Your task to perform on an android device: Open calendar and show me the fourth week of next month Image 0: 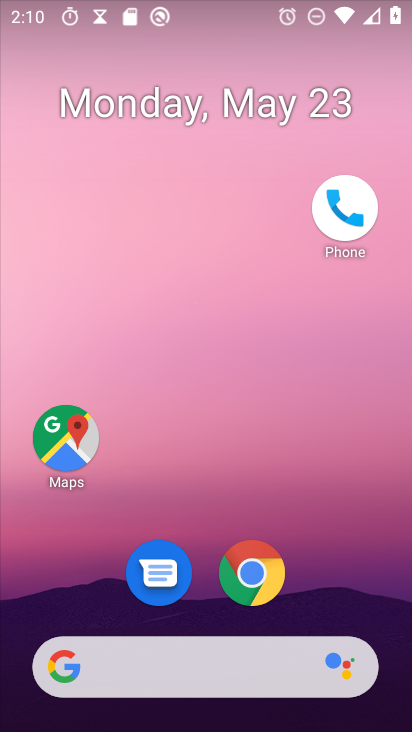
Step 0: press home button
Your task to perform on an android device: Open calendar and show me the fourth week of next month Image 1: 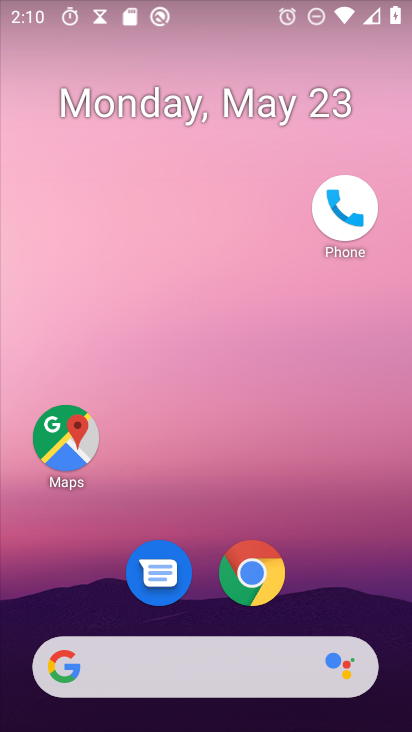
Step 1: drag from (134, 649) to (230, 204)
Your task to perform on an android device: Open calendar and show me the fourth week of next month Image 2: 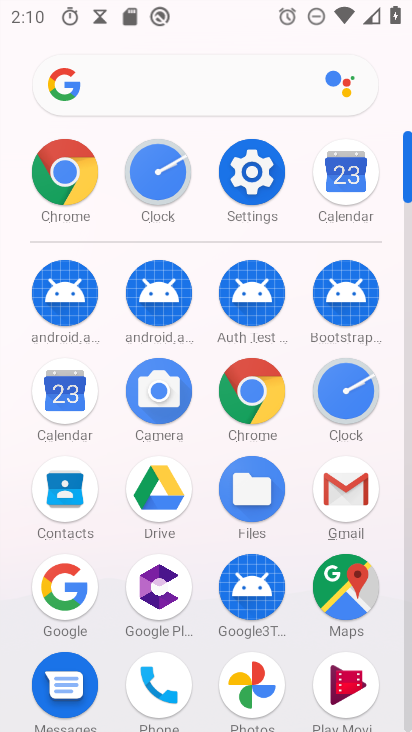
Step 2: click (73, 407)
Your task to perform on an android device: Open calendar and show me the fourth week of next month Image 3: 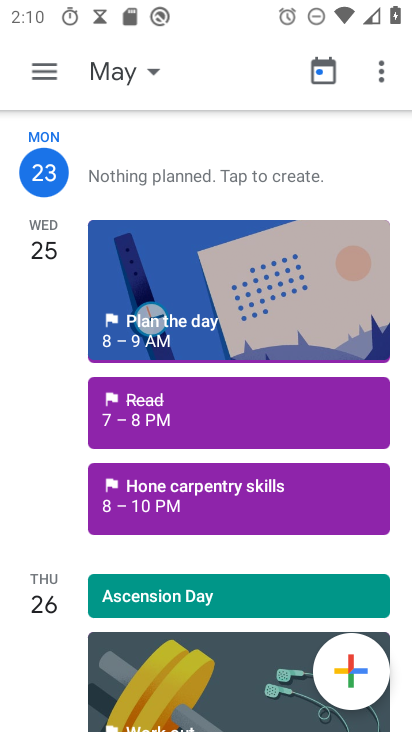
Step 3: click (112, 72)
Your task to perform on an android device: Open calendar and show me the fourth week of next month Image 4: 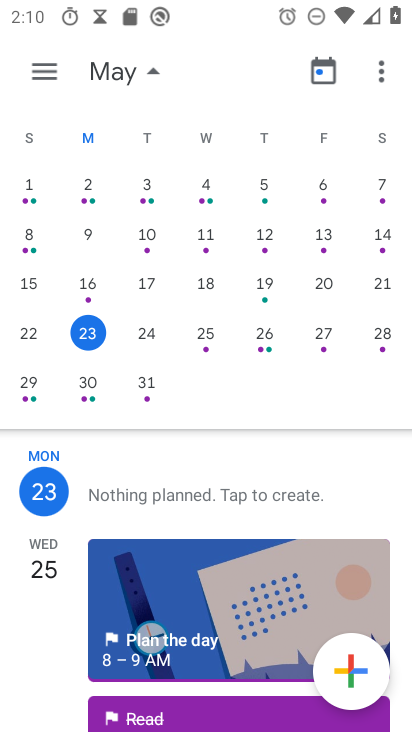
Step 4: drag from (368, 307) to (1, 307)
Your task to perform on an android device: Open calendar and show me the fourth week of next month Image 5: 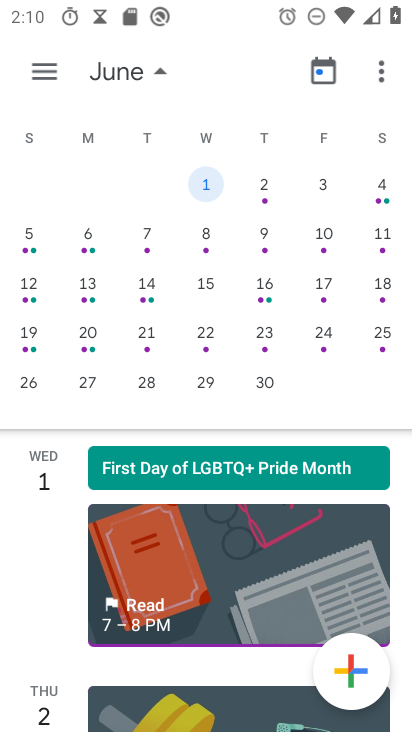
Step 5: click (33, 338)
Your task to perform on an android device: Open calendar and show me the fourth week of next month Image 6: 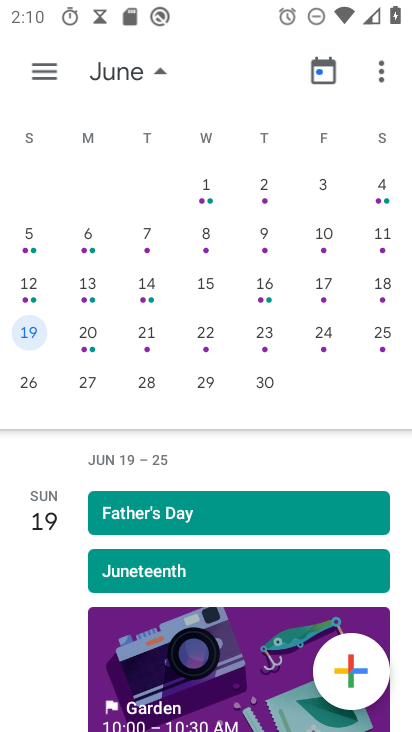
Step 6: click (52, 65)
Your task to perform on an android device: Open calendar and show me the fourth week of next month Image 7: 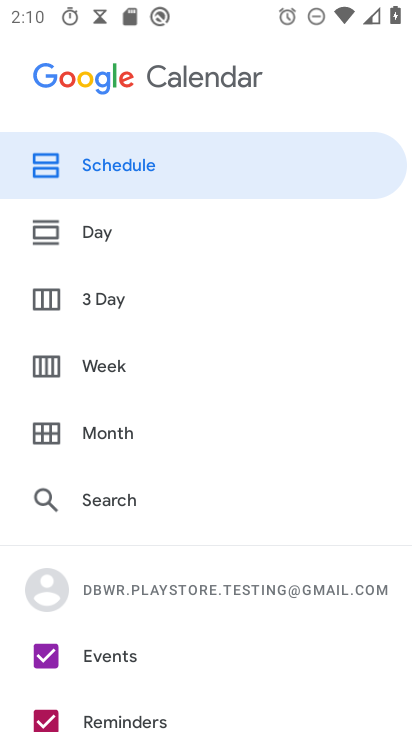
Step 7: click (113, 371)
Your task to perform on an android device: Open calendar and show me the fourth week of next month Image 8: 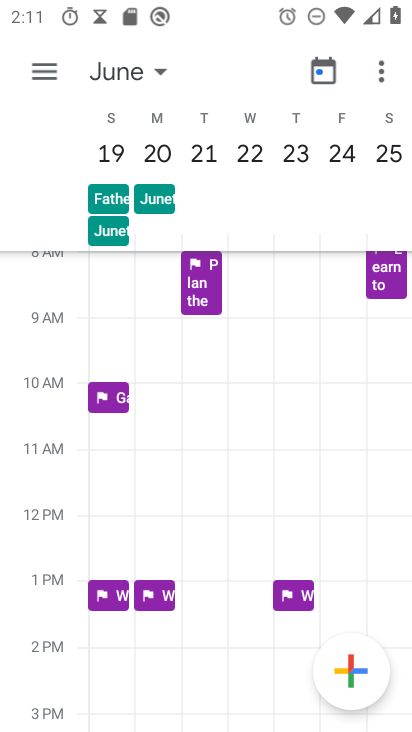
Step 8: task complete